Your task to perform on an android device: Go to Maps Image 0: 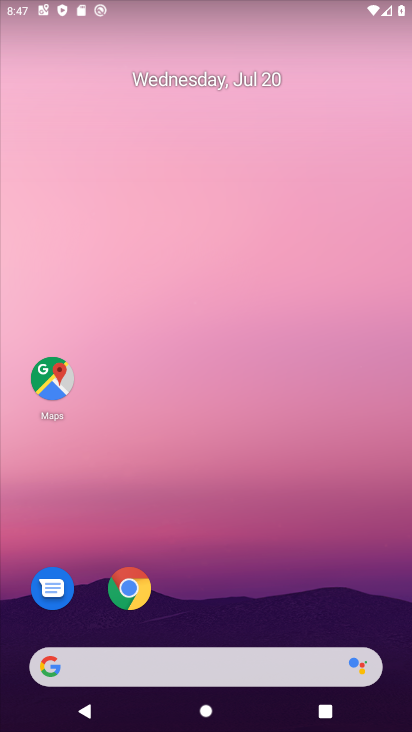
Step 0: click (60, 398)
Your task to perform on an android device: Go to Maps Image 1: 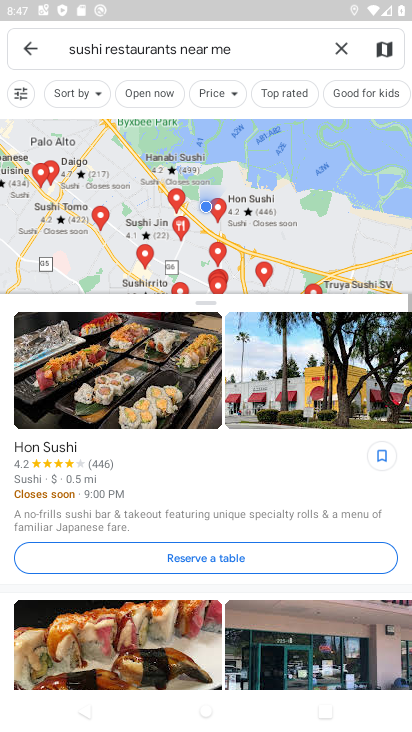
Step 1: task complete